Your task to perform on an android device: change the clock display to show seconds Image 0: 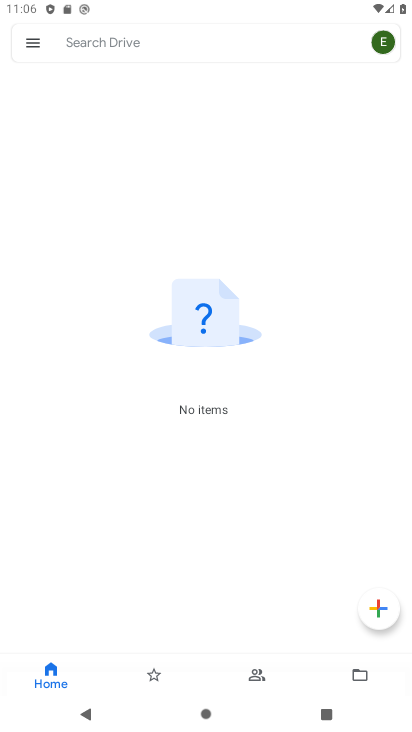
Step 0: press home button
Your task to perform on an android device: change the clock display to show seconds Image 1: 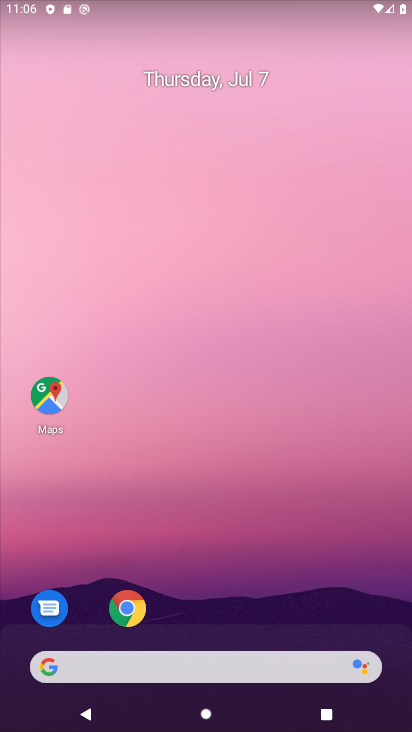
Step 1: drag from (174, 515) to (256, 3)
Your task to perform on an android device: change the clock display to show seconds Image 2: 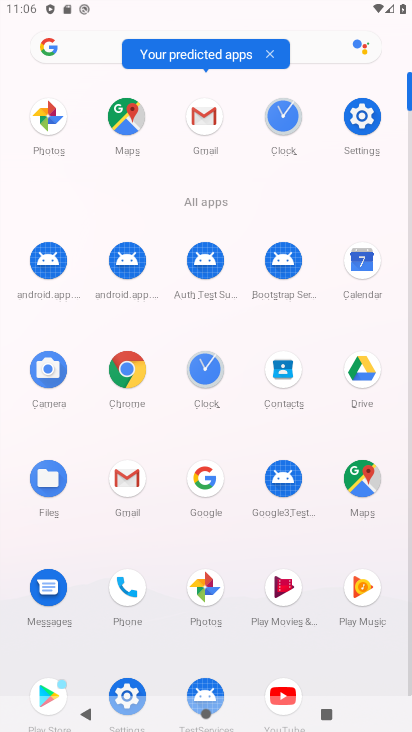
Step 2: click (208, 374)
Your task to perform on an android device: change the clock display to show seconds Image 3: 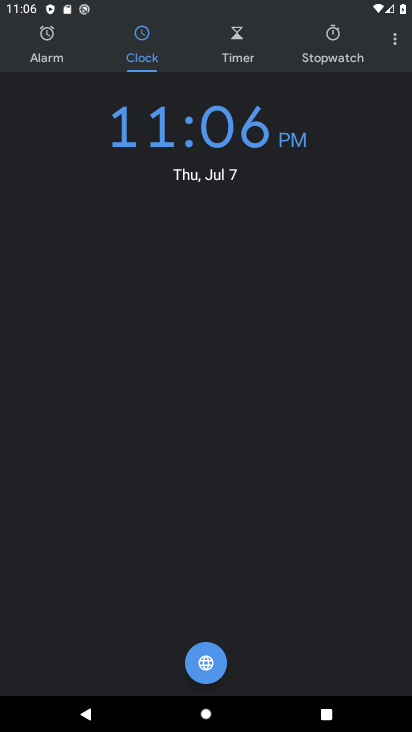
Step 3: click (385, 36)
Your task to perform on an android device: change the clock display to show seconds Image 4: 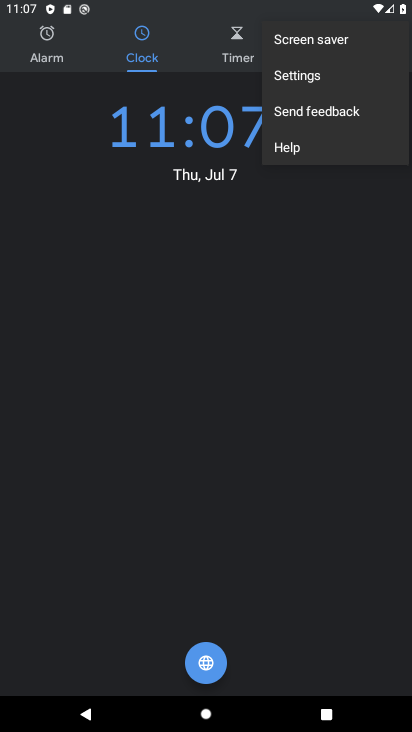
Step 4: click (305, 75)
Your task to perform on an android device: change the clock display to show seconds Image 5: 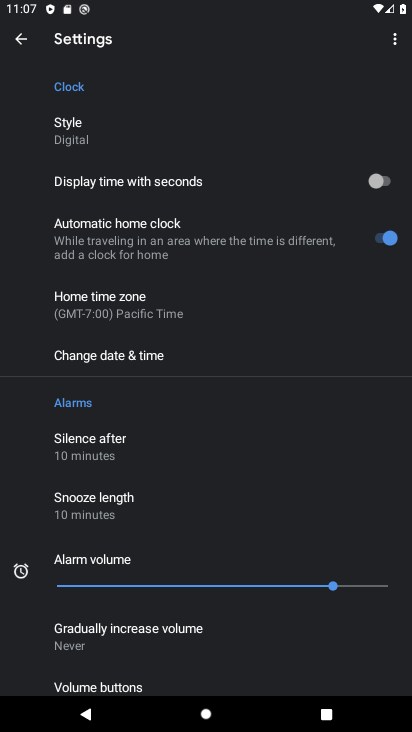
Step 5: click (400, 179)
Your task to perform on an android device: change the clock display to show seconds Image 6: 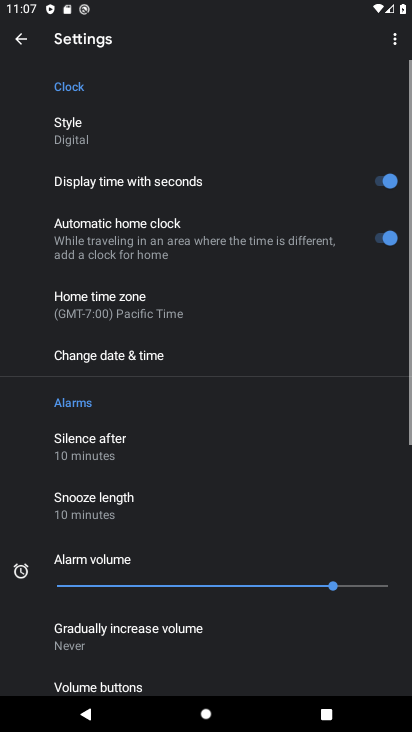
Step 6: task complete